Your task to perform on an android device: Open calendar and show me the first week of next month Image 0: 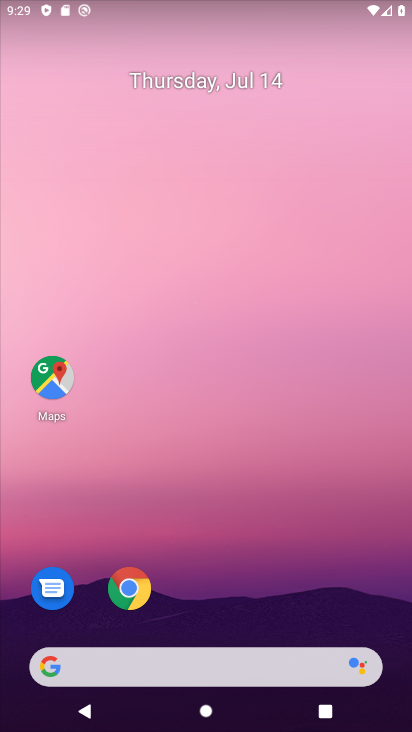
Step 0: drag from (237, 637) to (319, 96)
Your task to perform on an android device: Open calendar and show me the first week of next month Image 1: 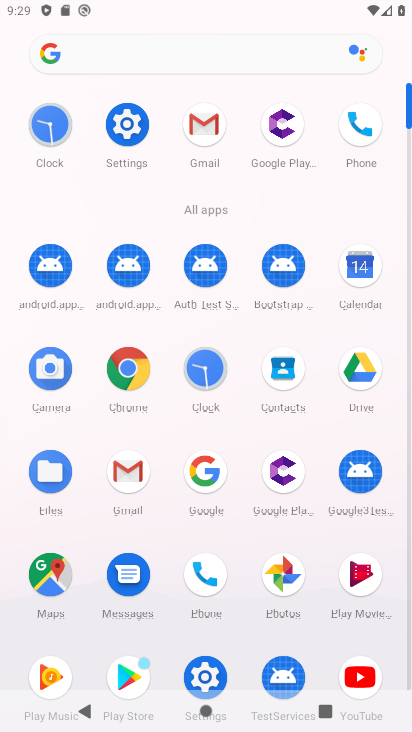
Step 1: click (360, 277)
Your task to perform on an android device: Open calendar and show me the first week of next month Image 2: 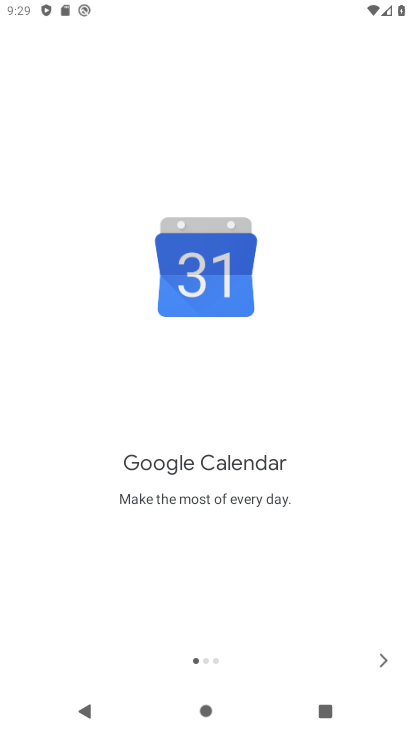
Step 2: click (374, 653)
Your task to perform on an android device: Open calendar and show me the first week of next month Image 3: 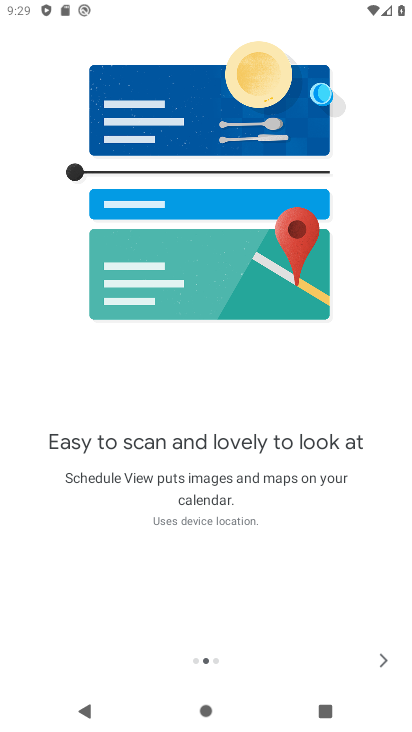
Step 3: click (377, 652)
Your task to perform on an android device: Open calendar and show me the first week of next month Image 4: 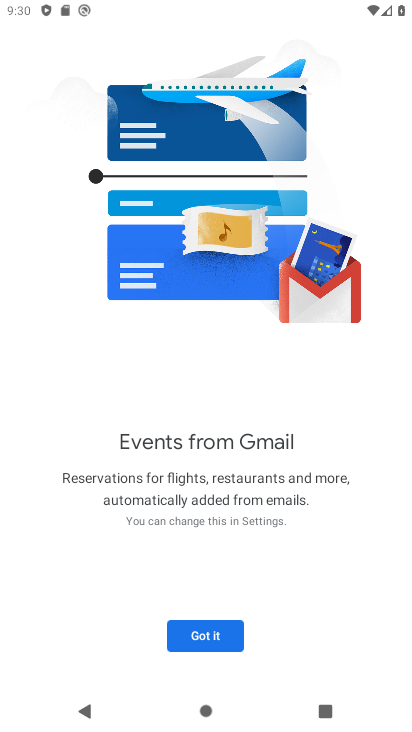
Step 4: click (185, 633)
Your task to perform on an android device: Open calendar and show me the first week of next month Image 5: 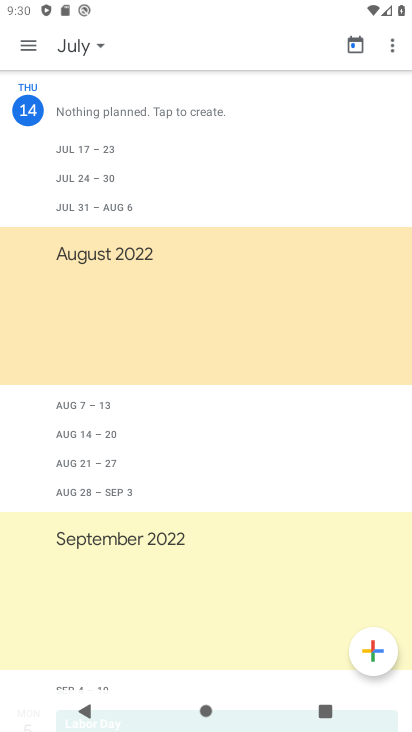
Step 5: click (97, 38)
Your task to perform on an android device: Open calendar and show me the first week of next month Image 6: 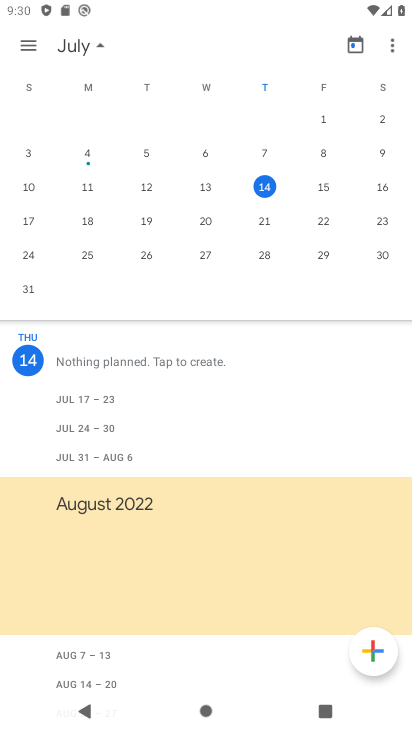
Step 6: drag from (362, 221) to (11, 228)
Your task to perform on an android device: Open calendar and show me the first week of next month Image 7: 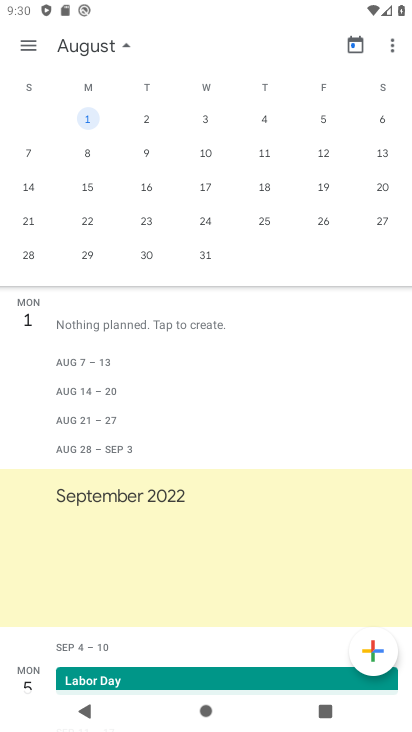
Step 7: click (81, 120)
Your task to perform on an android device: Open calendar and show me the first week of next month Image 8: 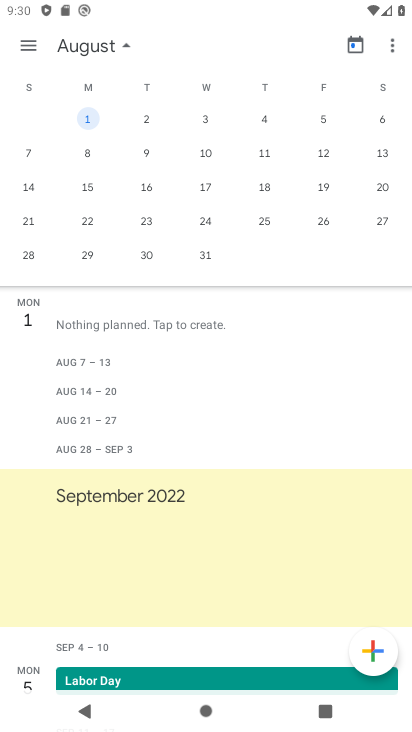
Step 8: task complete